Your task to perform on an android device: View the shopping cart on target.com. Add jbl charge 4 to the cart on target.com, then select checkout. Image 0: 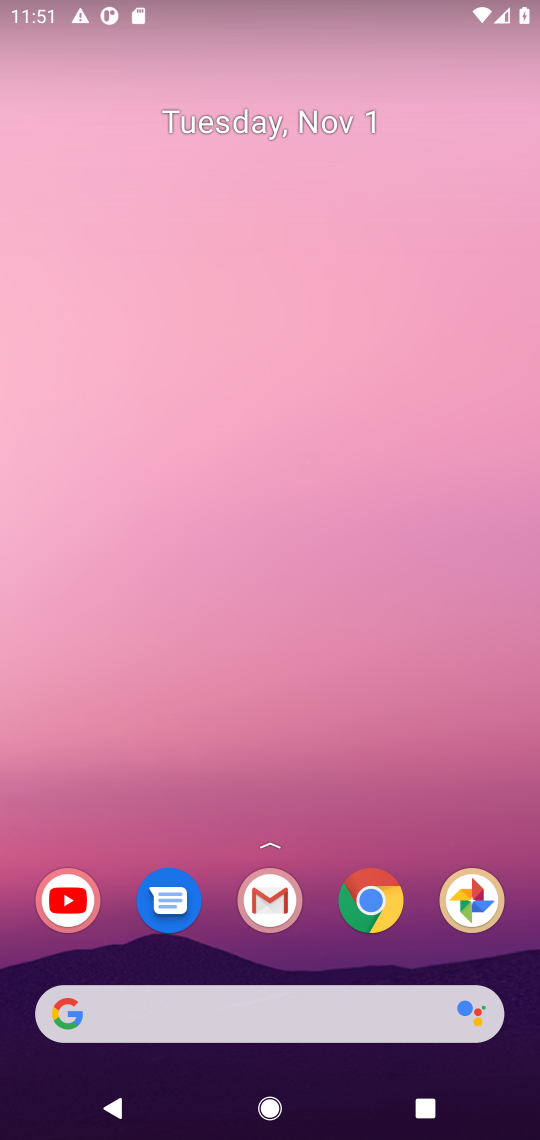
Step 0: click (369, 918)
Your task to perform on an android device: View the shopping cart on target.com. Add jbl charge 4 to the cart on target.com, then select checkout. Image 1: 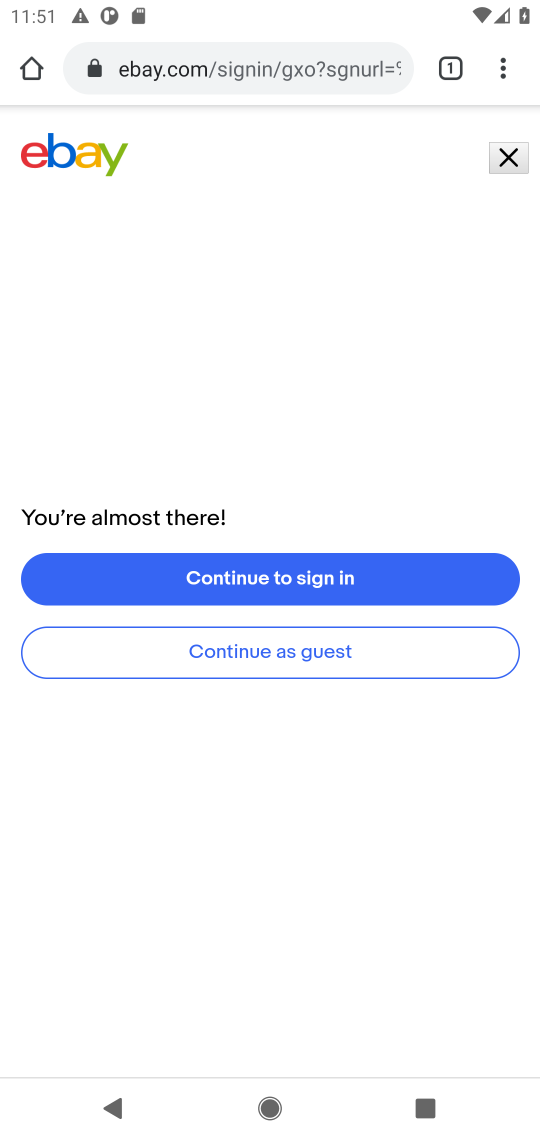
Step 1: click (184, 69)
Your task to perform on an android device: View the shopping cart on target.com. Add jbl charge 4 to the cart on target.com, then select checkout. Image 2: 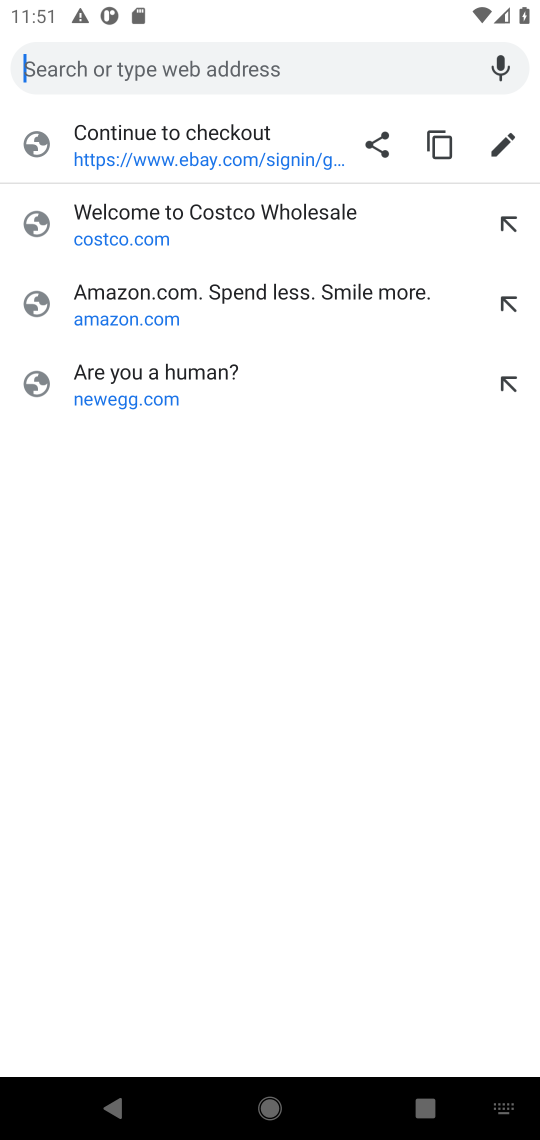
Step 2: type "target"
Your task to perform on an android device: View the shopping cart on target.com. Add jbl charge 4 to the cart on target.com, then select checkout. Image 3: 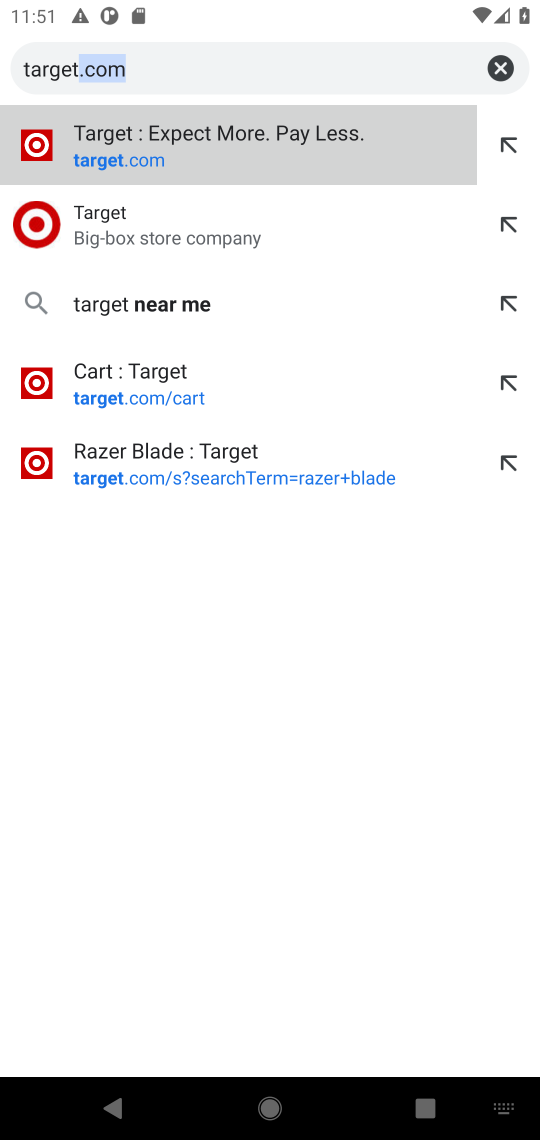
Step 3: click (41, 205)
Your task to perform on an android device: View the shopping cart on target.com. Add jbl charge 4 to the cart on target.com, then select checkout. Image 4: 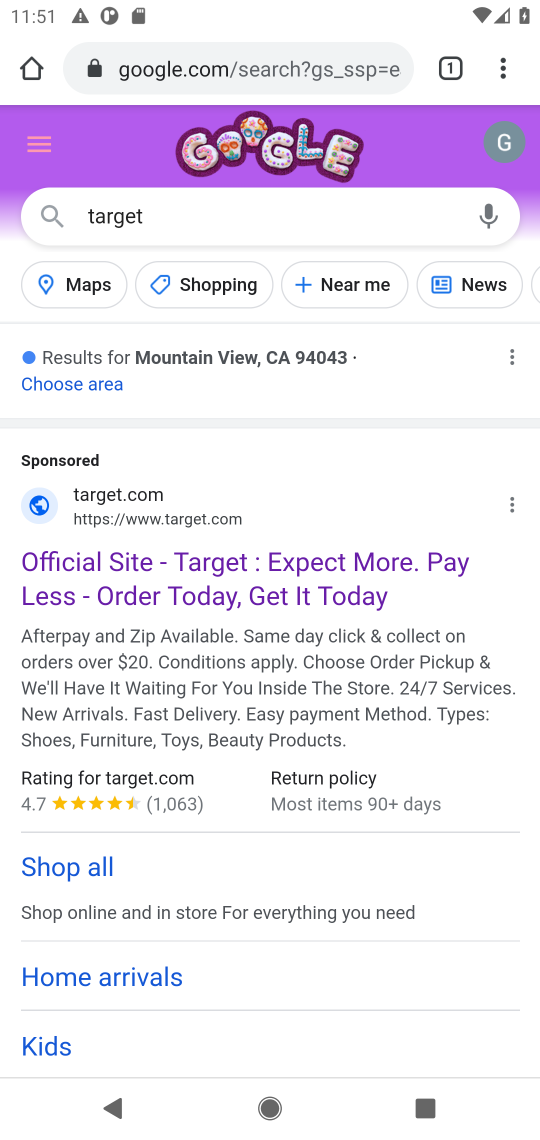
Step 4: click (396, 553)
Your task to perform on an android device: View the shopping cart on target.com. Add jbl charge 4 to the cart on target.com, then select checkout. Image 5: 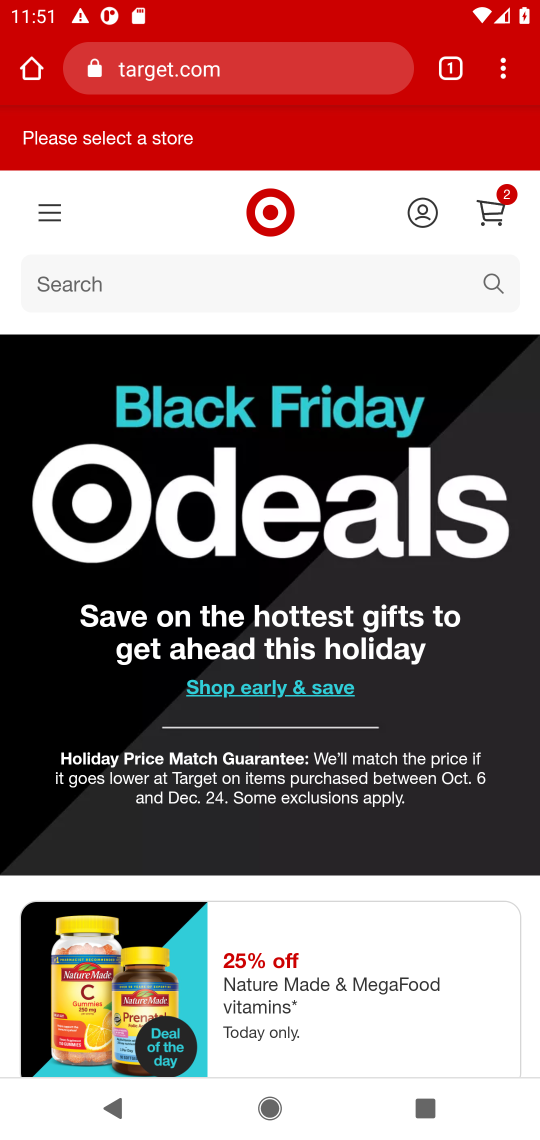
Step 5: click (495, 204)
Your task to perform on an android device: View the shopping cart on target.com. Add jbl charge 4 to the cart on target.com, then select checkout. Image 6: 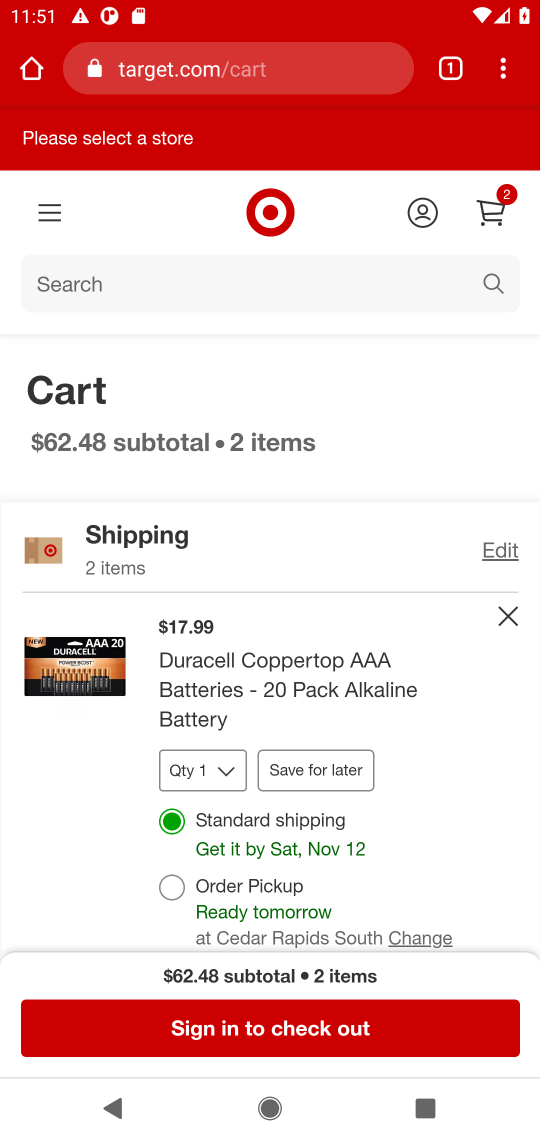
Step 6: click (298, 270)
Your task to perform on an android device: View the shopping cart on target.com. Add jbl charge 4 to the cart on target.com, then select checkout. Image 7: 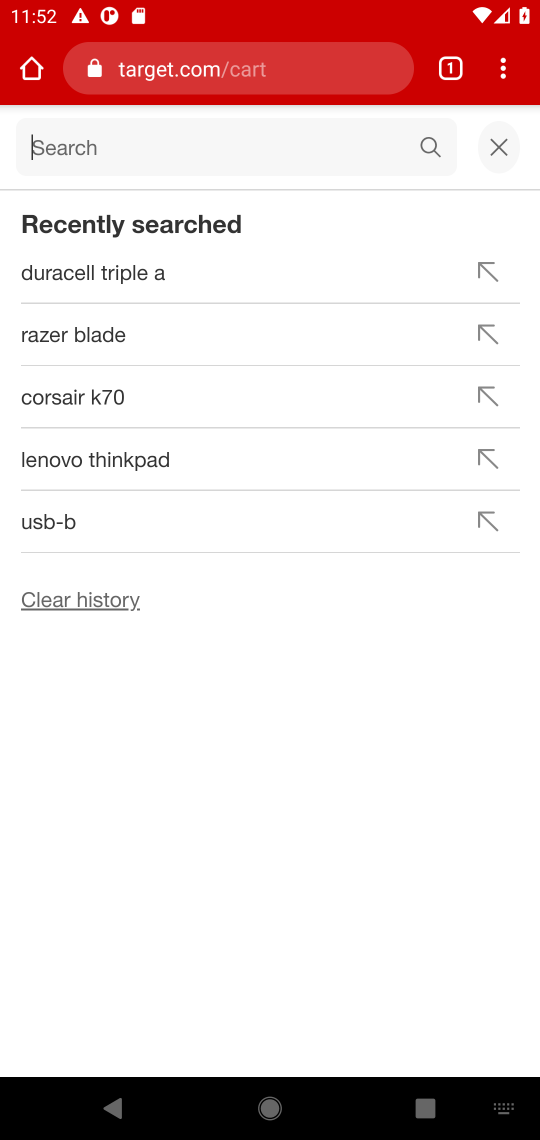
Step 7: type "jbl charge 4"
Your task to perform on an android device: View the shopping cart on target.com. Add jbl charge 4 to the cart on target.com, then select checkout. Image 8: 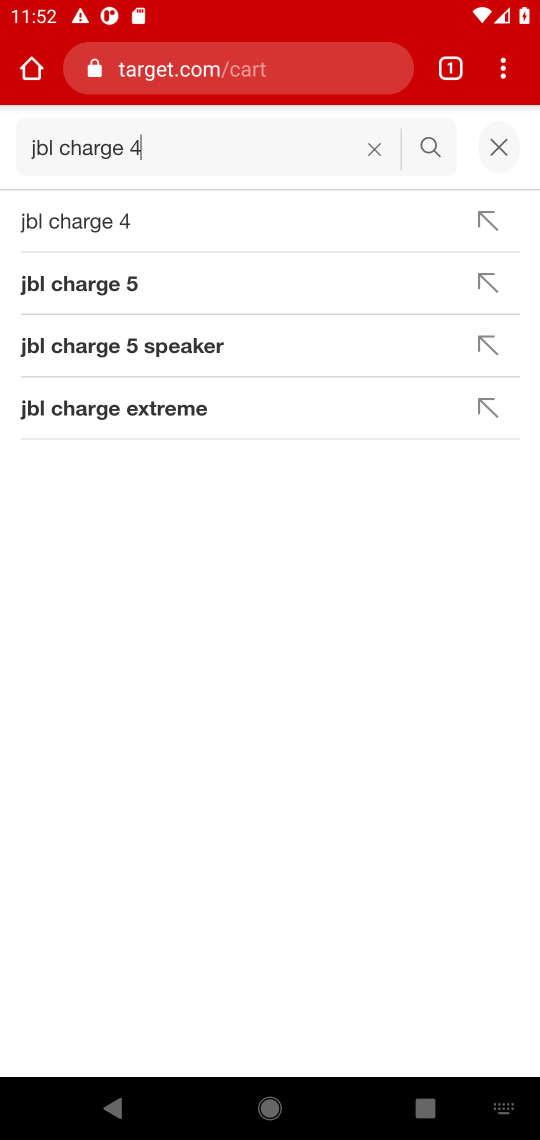
Step 8: type ""
Your task to perform on an android device: View the shopping cart on target.com. Add jbl charge 4 to the cart on target.com, then select checkout. Image 9: 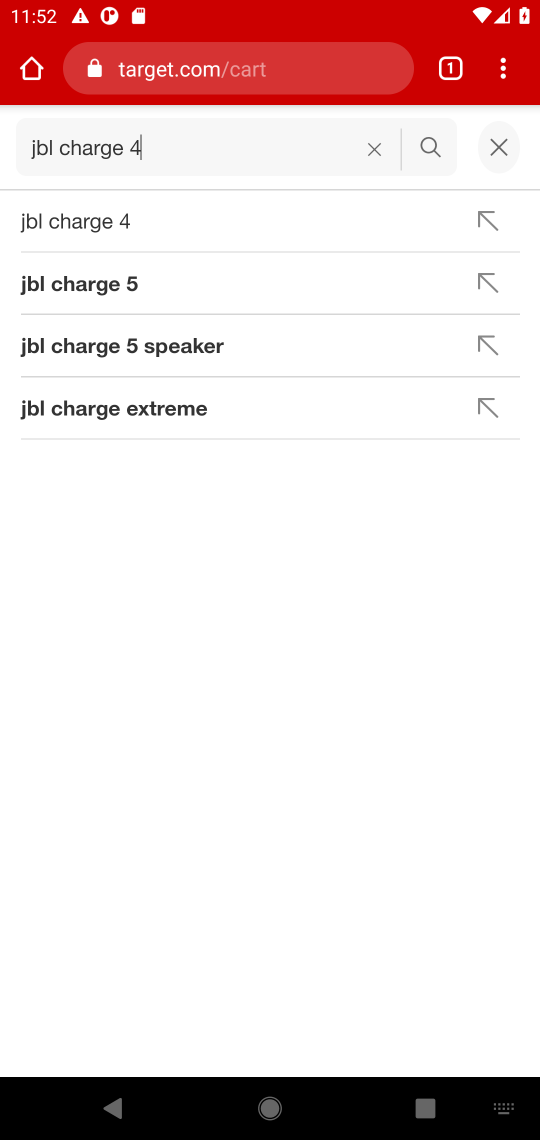
Step 9: click (421, 152)
Your task to perform on an android device: View the shopping cart on target.com. Add jbl charge 4 to the cart on target.com, then select checkout. Image 10: 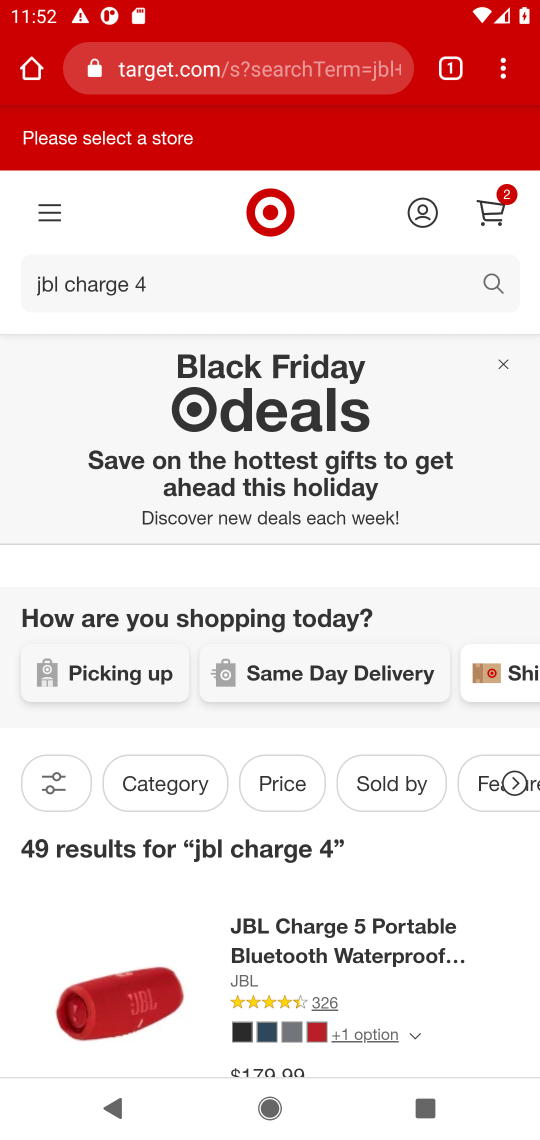
Step 10: task complete